Your task to perform on an android device: open device folders in google photos Image 0: 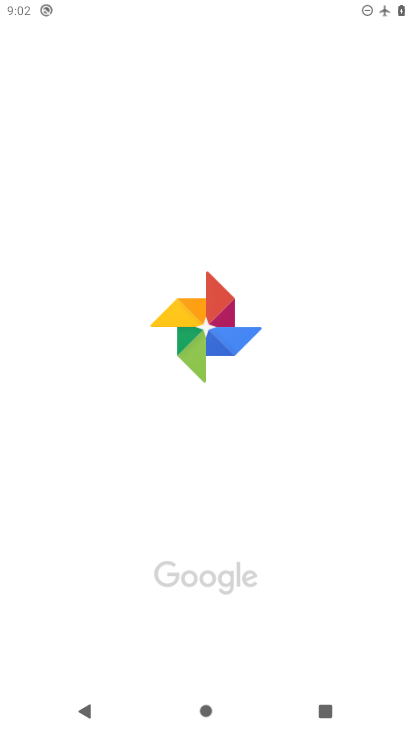
Step 0: drag from (212, 625) to (237, 102)
Your task to perform on an android device: open device folders in google photos Image 1: 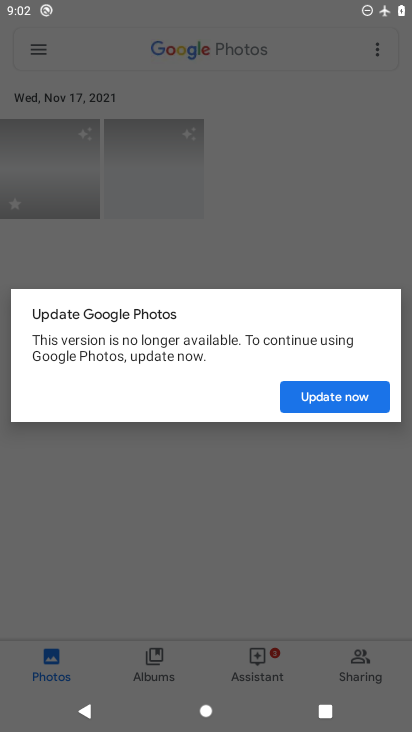
Step 1: press home button
Your task to perform on an android device: open device folders in google photos Image 2: 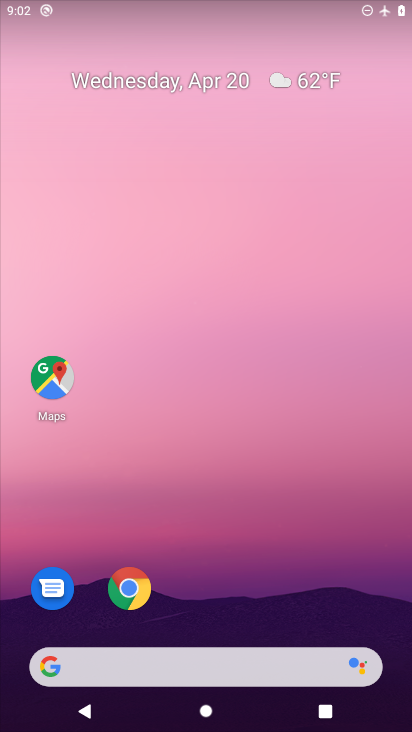
Step 2: drag from (211, 627) to (231, 69)
Your task to perform on an android device: open device folders in google photos Image 3: 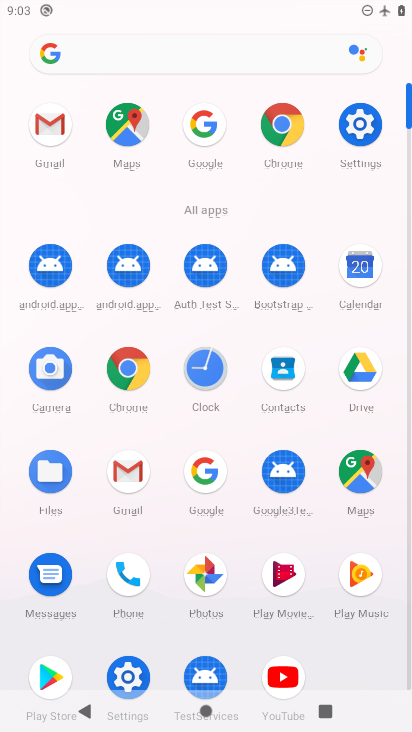
Step 3: click (204, 569)
Your task to perform on an android device: open device folders in google photos Image 4: 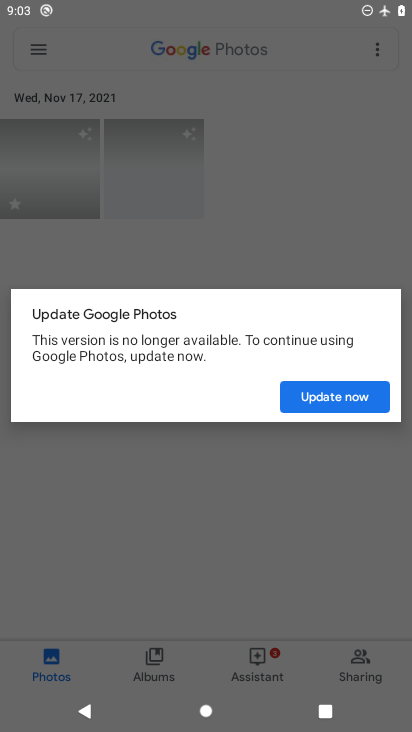
Step 4: click (329, 393)
Your task to perform on an android device: open device folders in google photos Image 5: 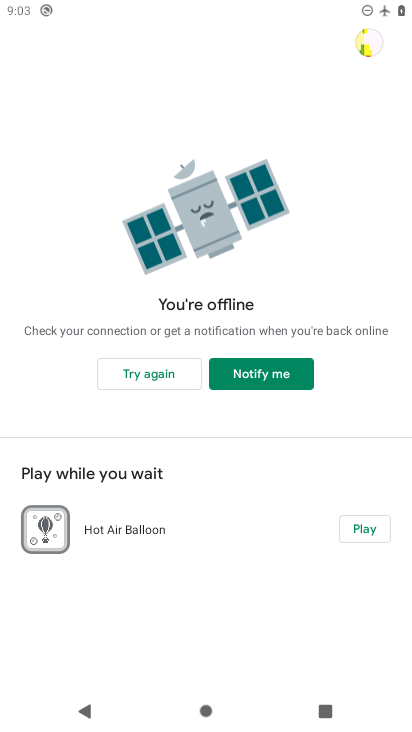
Step 5: press back button
Your task to perform on an android device: open device folders in google photos Image 6: 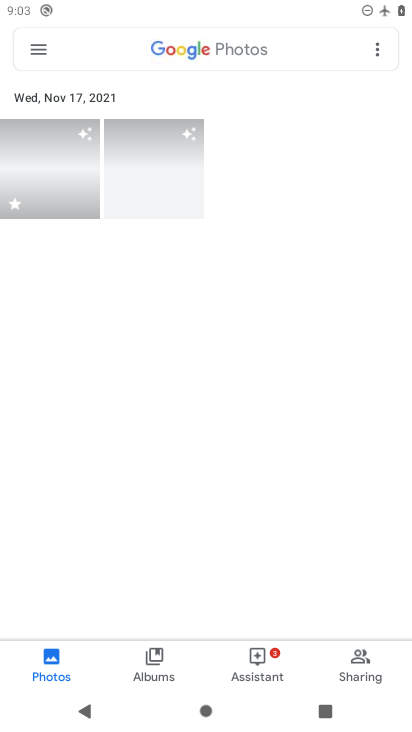
Step 6: click (33, 44)
Your task to perform on an android device: open device folders in google photos Image 7: 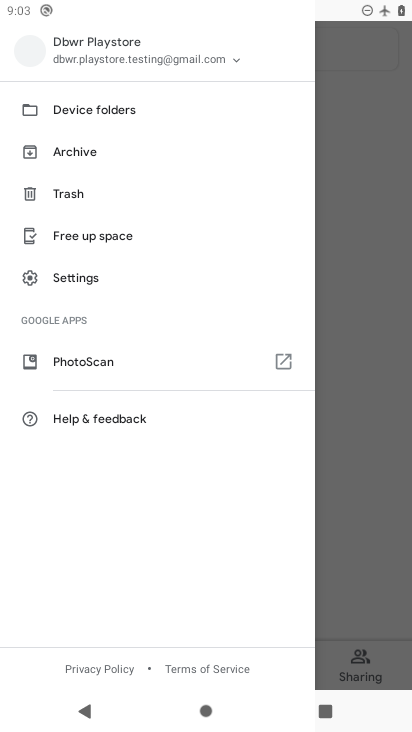
Step 7: click (101, 105)
Your task to perform on an android device: open device folders in google photos Image 8: 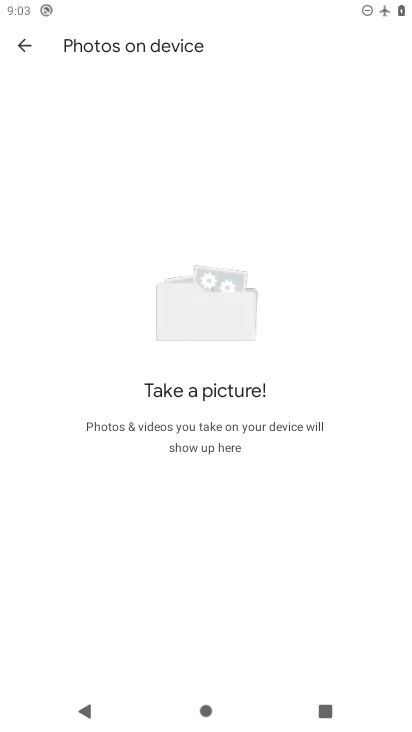
Step 8: task complete